Your task to perform on an android device: toggle wifi Image 0: 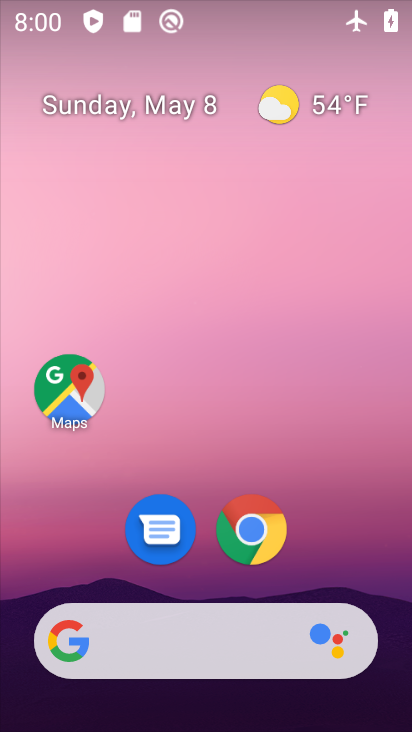
Step 0: press home button
Your task to perform on an android device: toggle wifi Image 1: 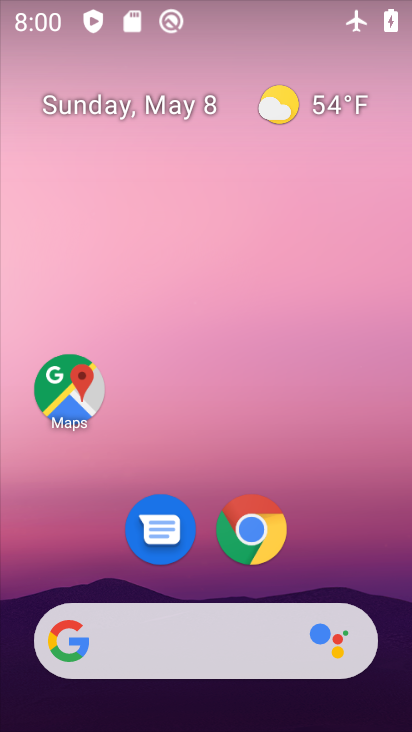
Step 1: drag from (371, 555) to (368, 116)
Your task to perform on an android device: toggle wifi Image 2: 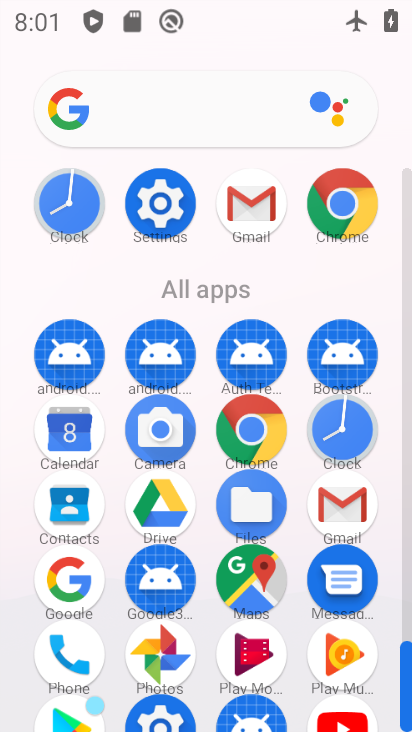
Step 2: click (174, 211)
Your task to perform on an android device: toggle wifi Image 3: 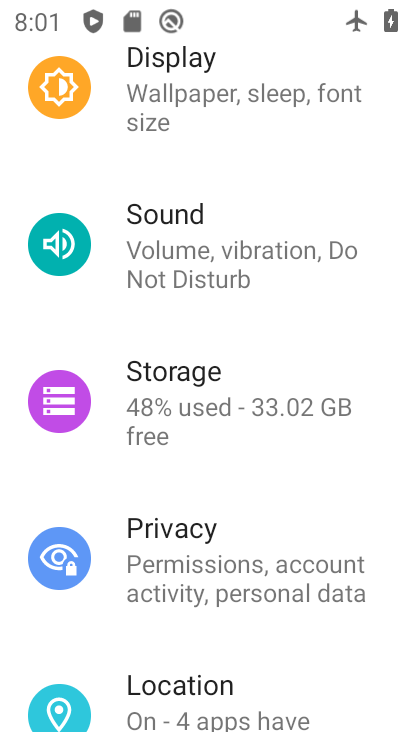
Step 3: drag from (279, 171) to (258, 546)
Your task to perform on an android device: toggle wifi Image 4: 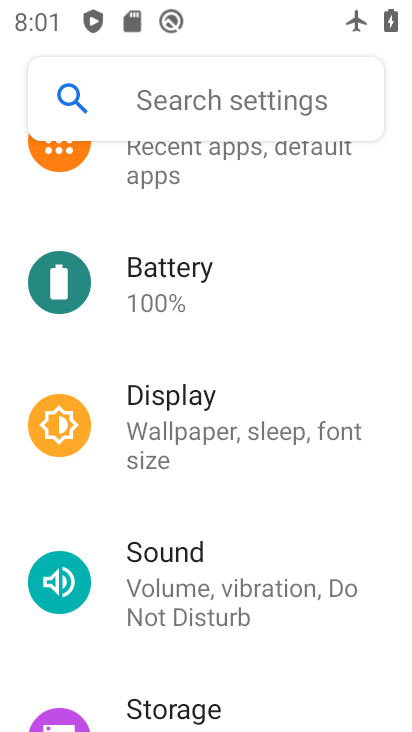
Step 4: drag from (259, 253) to (255, 623)
Your task to perform on an android device: toggle wifi Image 5: 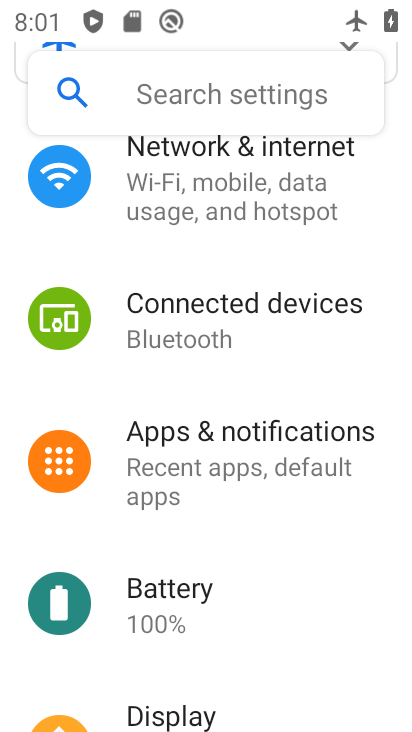
Step 5: drag from (256, 268) to (275, 653)
Your task to perform on an android device: toggle wifi Image 6: 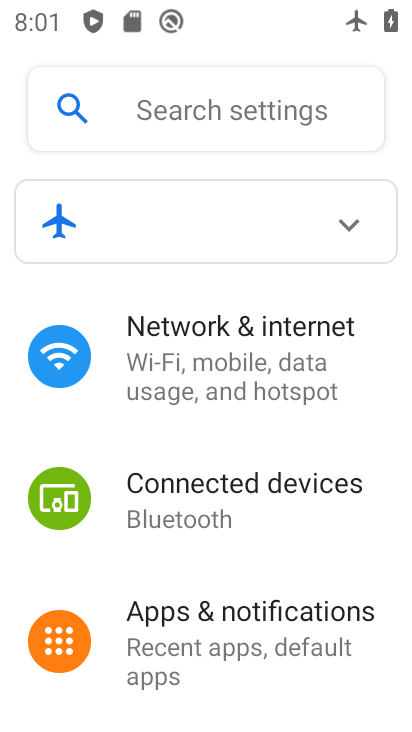
Step 6: click (239, 331)
Your task to perform on an android device: toggle wifi Image 7: 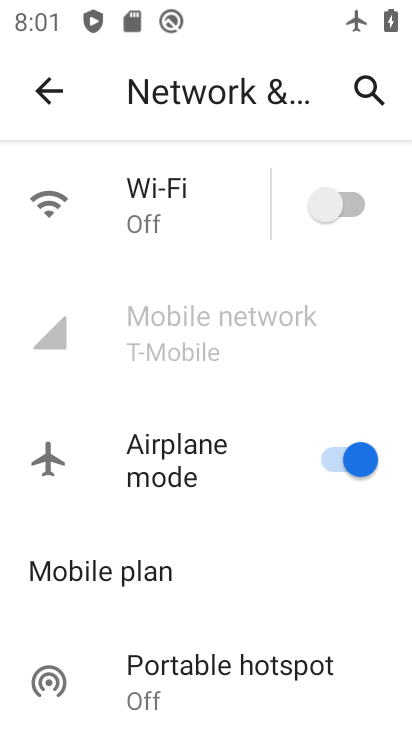
Step 7: click (368, 199)
Your task to perform on an android device: toggle wifi Image 8: 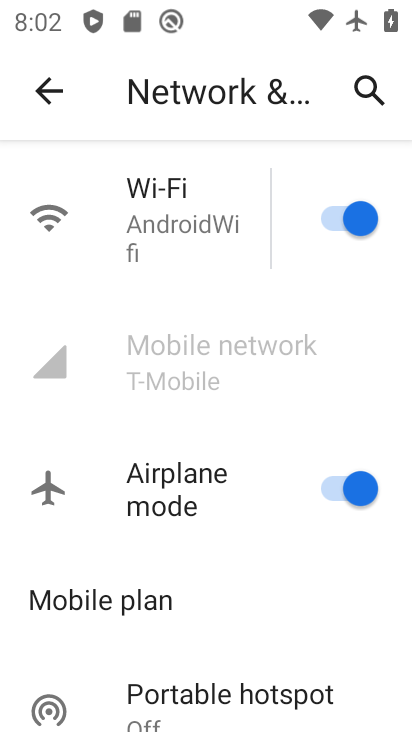
Step 8: task complete